Your task to perform on an android device: Is it going to rain today? Image 0: 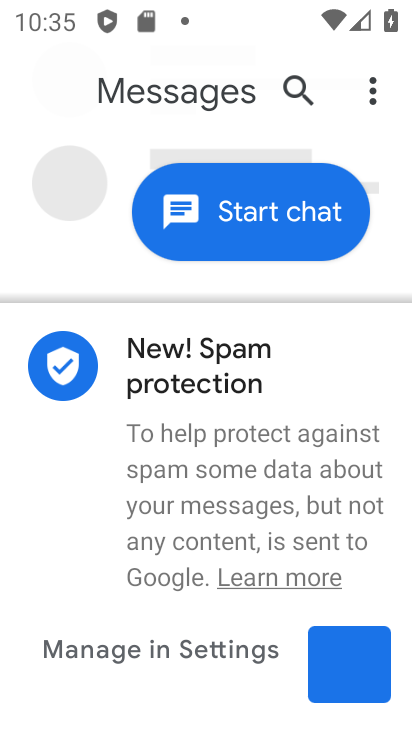
Step 0: press home button
Your task to perform on an android device: Is it going to rain today? Image 1: 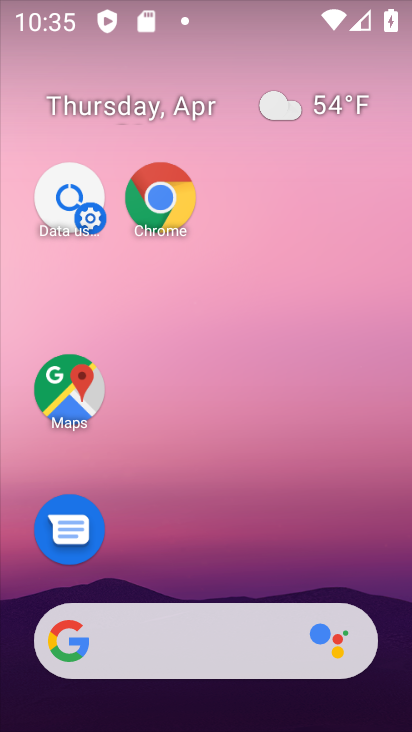
Step 1: drag from (206, 586) to (160, 135)
Your task to perform on an android device: Is it going to rain today? Image 2: 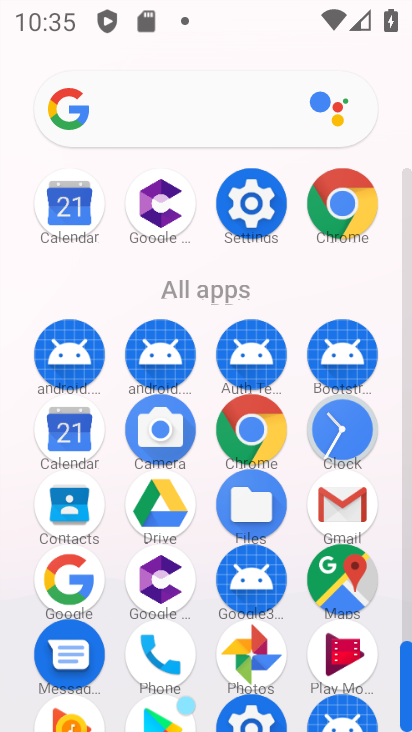
Step 2: click (72, 593)
Your task to perform on an android device: Is it going to rain today? Image 3: 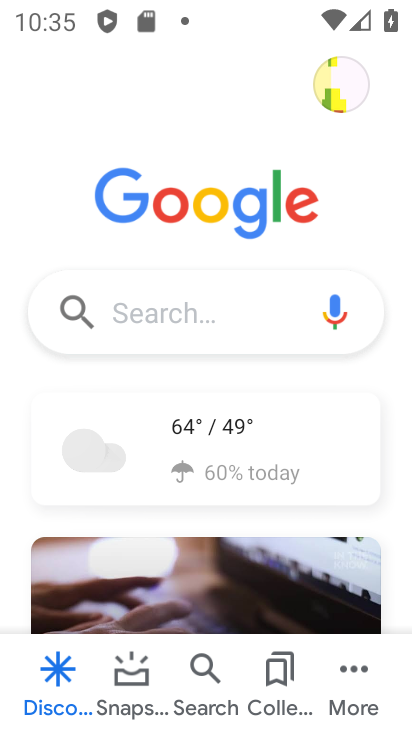
Step 3: click (123, 433)
Your task to perform on an android device: Is it going to rain today? Image 4: 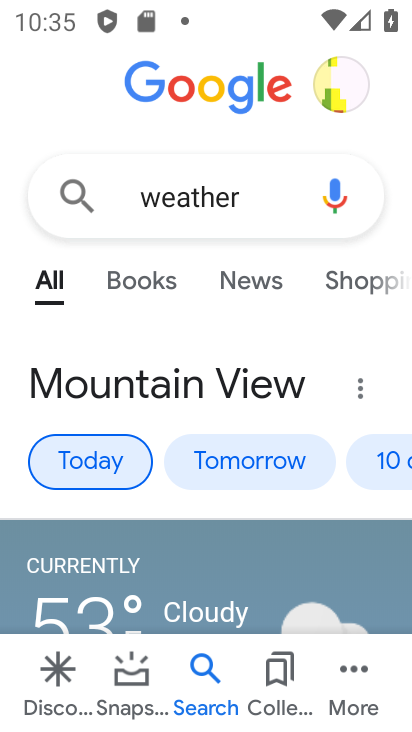
Step 4: task complete